Your task to perform on an android device: turn on wifi Image 0: 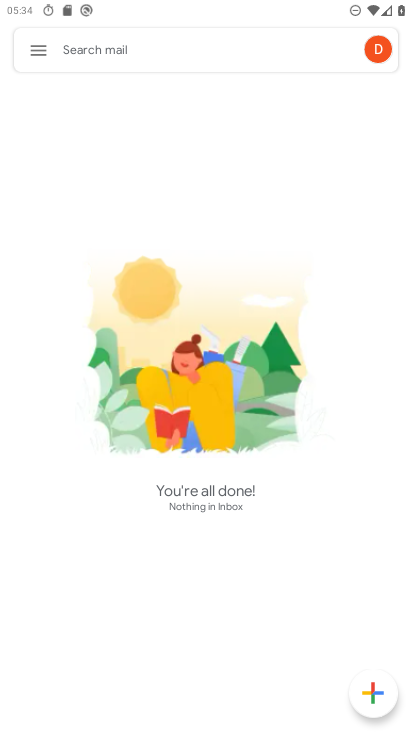
Step 0: click (154, 547)
Your task to perform on an android device: turn on wifi Image 1: 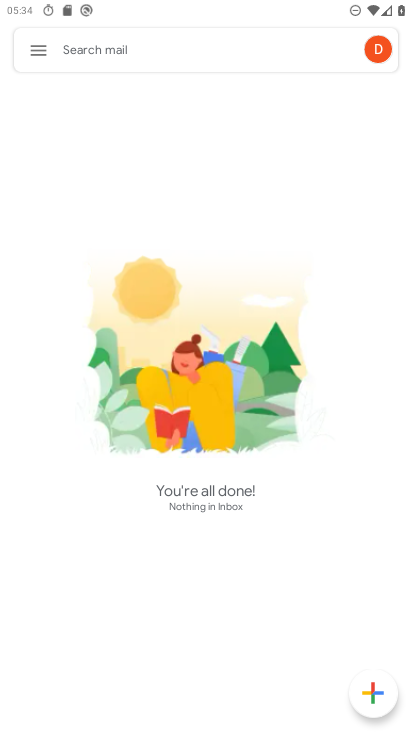
Step 1: task complete